Your task to perform on an android device: turn off picture-in-picture Image 0: 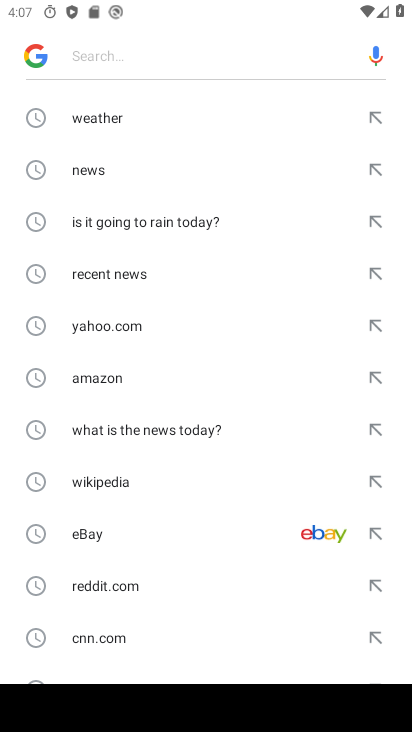
Step 0: press back button
Your task to perform on an android device: turn off picture-in-picture Image 1: 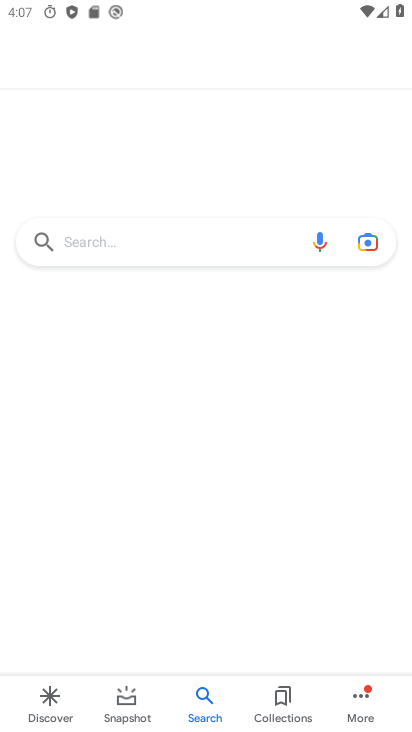
Step 1: press back button
Your task to perform on an android device: turn off picture-in-picture Image 2: 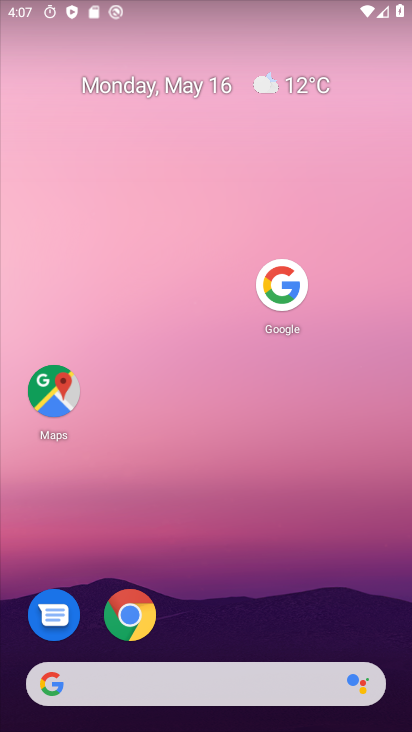
Step 2: drag from (216, 642) to (208, 66)
Your task to perform on an android device: turn off picture-in-picture Image 3: 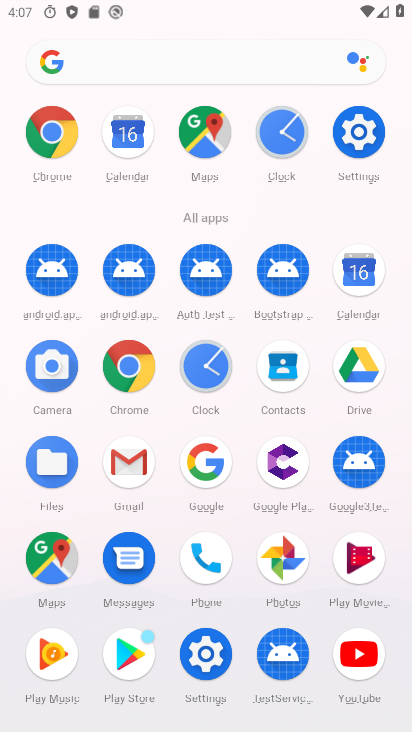
Step 3: click (202, 658)
Your task to perform on an android device: turn off picture-in-picture Image 4: 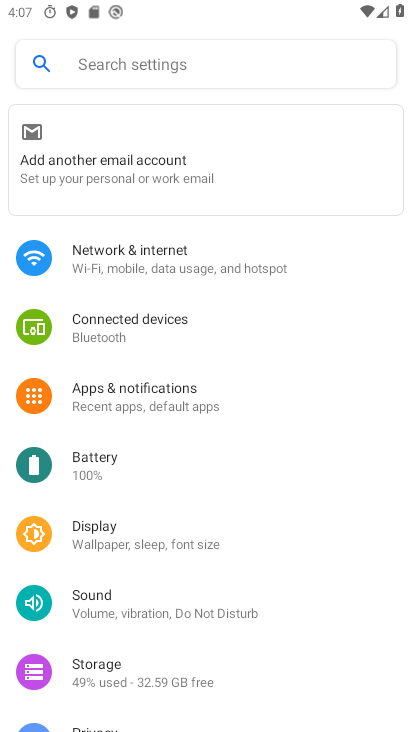
Step 4: drag from (208, 644) to (147, 224)
Your task to perform on an android device: turn off picture-in-picture Image 5: 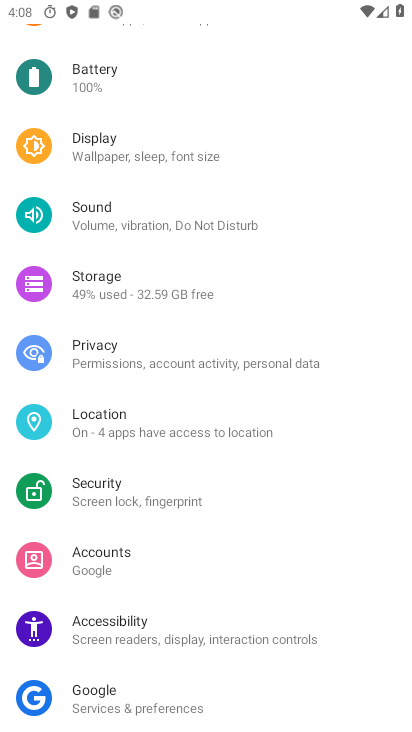
Step 5: drag from (139, 230) to (186, 618)
Your task to perform on an android device: turn off picture-in-picture Image 6: 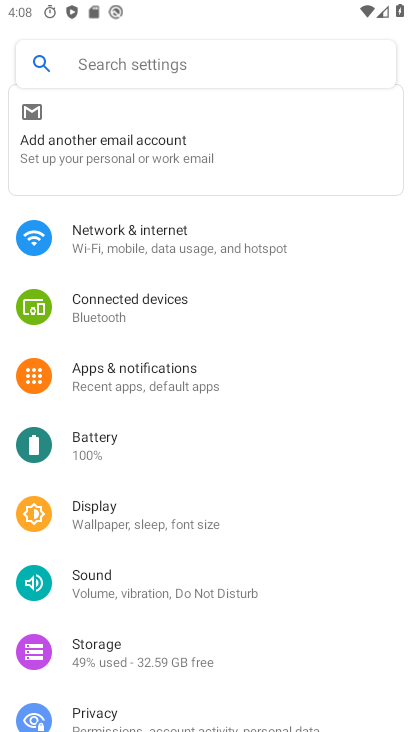
Step 6: click (154, 385)
Your task to perform on an android device: turn off picture-in-picture Image 7: 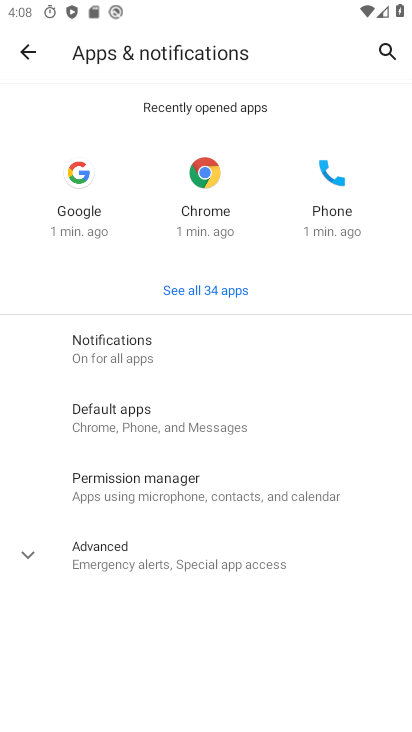
Step 7: click (158, 578)
Your task to perform on an android device: turn off picture-in-picture Image 8: 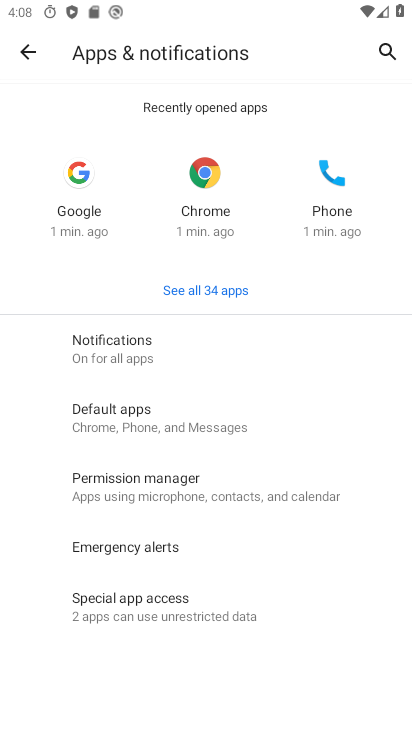
Step 8: click (146, 593)
Your task to perform on an android device: turn off picture-in-picture Image 9: 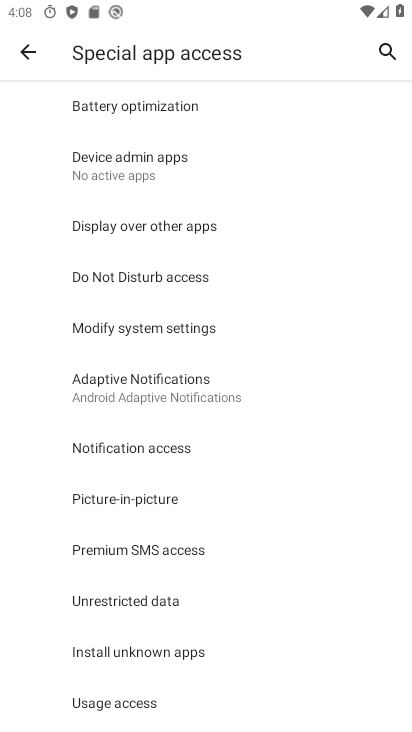
Step 9: click (78, 509)
Your task to perform on an android device: turn off picture-in-picture Image 10: 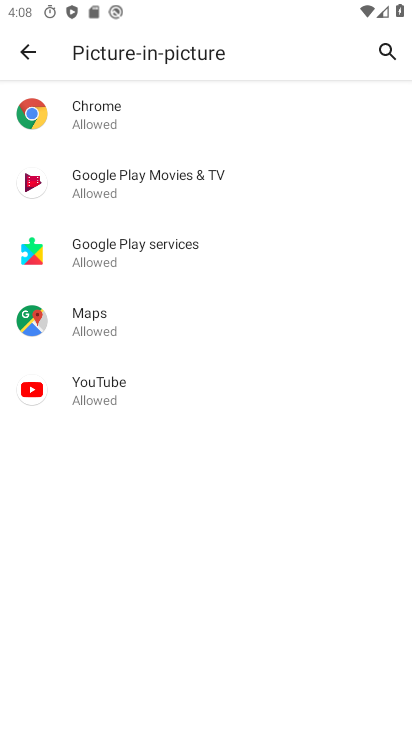
Step 10: task complete